Your task to perform on an android device: delete a single message in the gmail app Image 0: 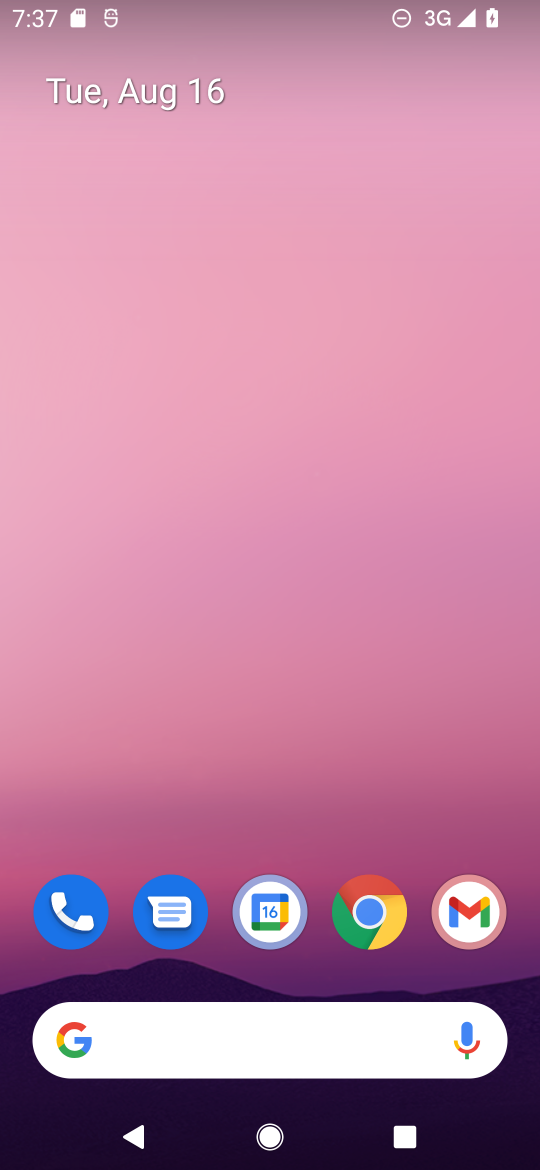
Step 0: click (469, 912)
Your task to perform on an android device: delete a single message in the gmail app Image 1: 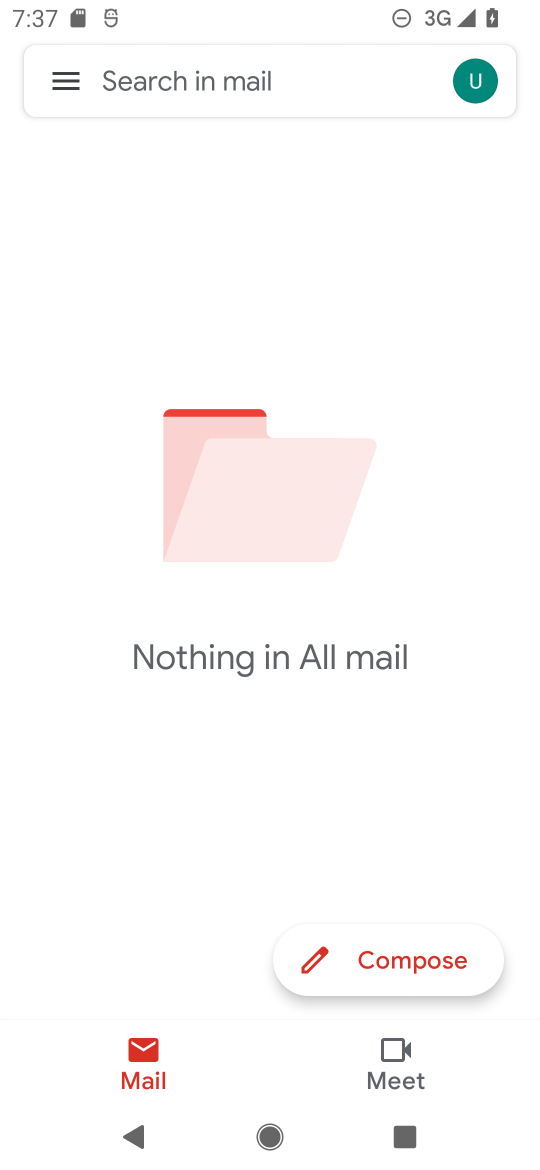
Step 1: click (55, 82)
Your task to perform on an android device: delete a single message in the gmail app Image 2: 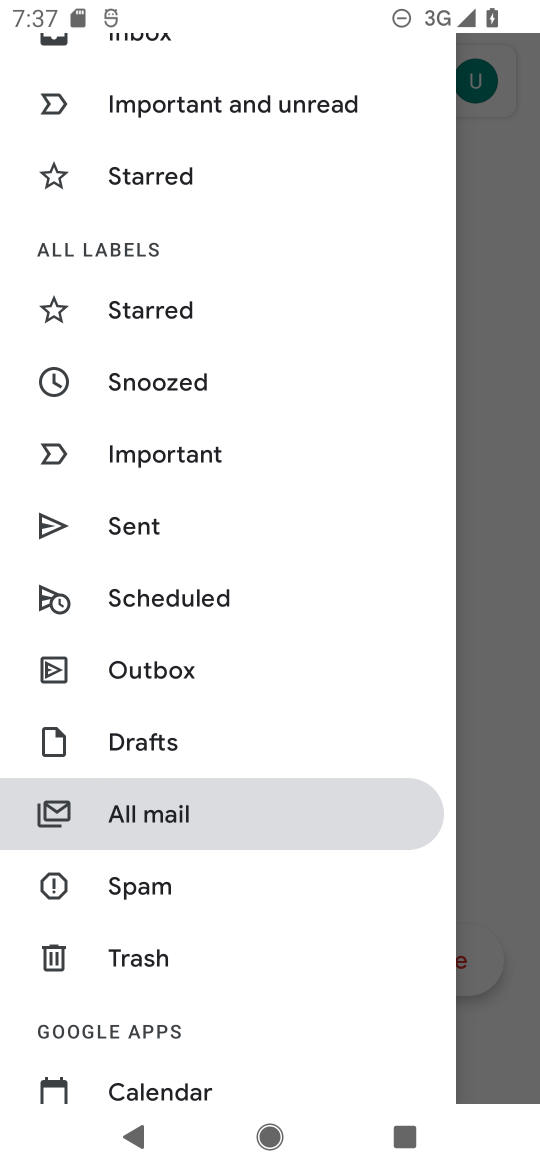
Step 2: click (206, 802)
Your task to perform on an android device: delete a single message in the gmail app Image 3: 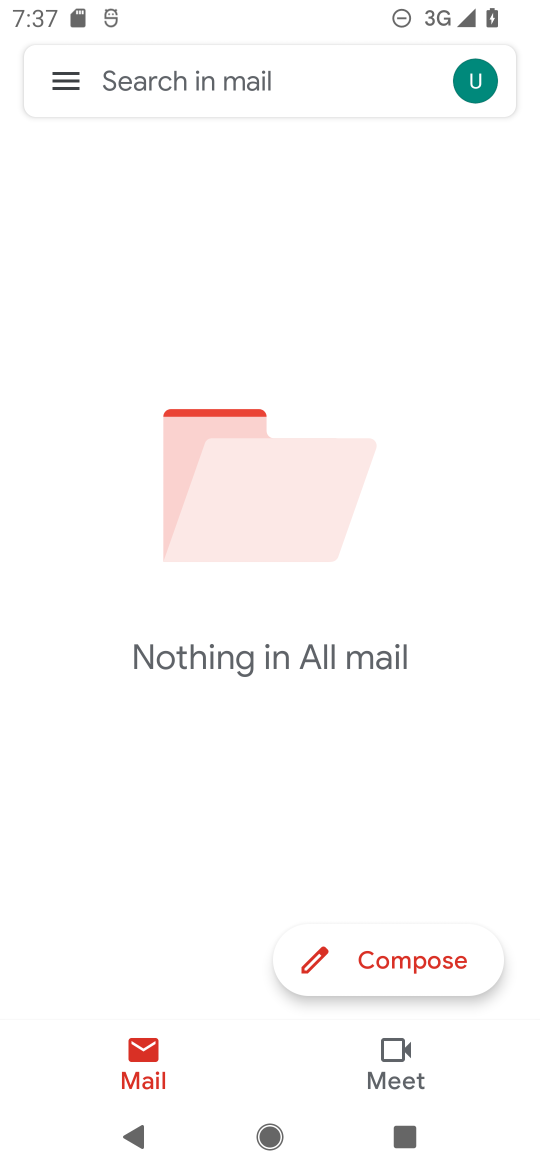
Step 3: task complete